Your task to perform on an android device: change text size in settings app Image 0: 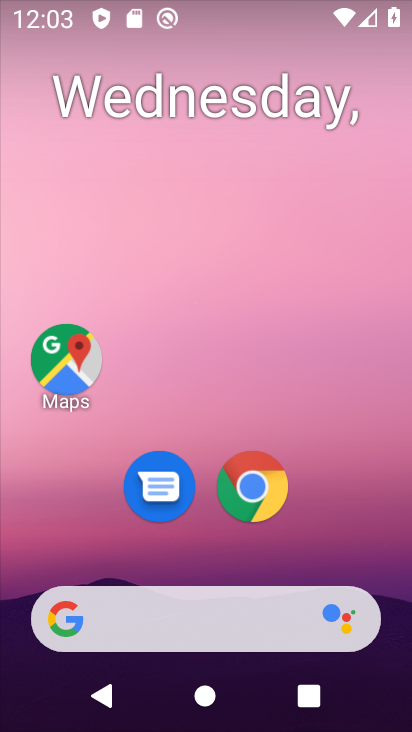
Step 0: drag from (329, 545) to (329, 166)
Your task to perform on an android device: change text size in settings app Image 1: 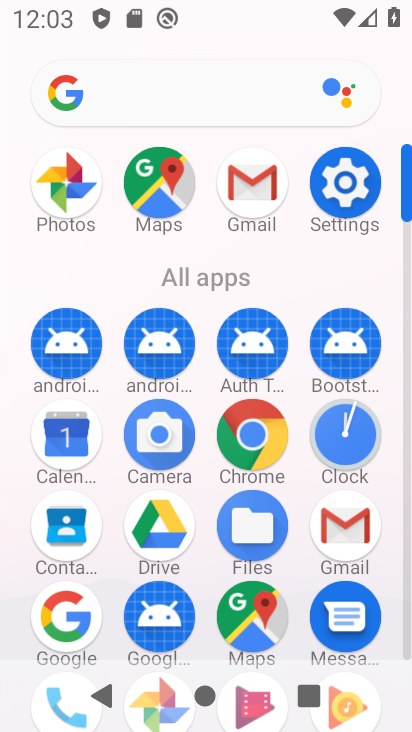
Step 1: click (344, 183)
Your task to perform on an android device: change text size in settings app Image 2: 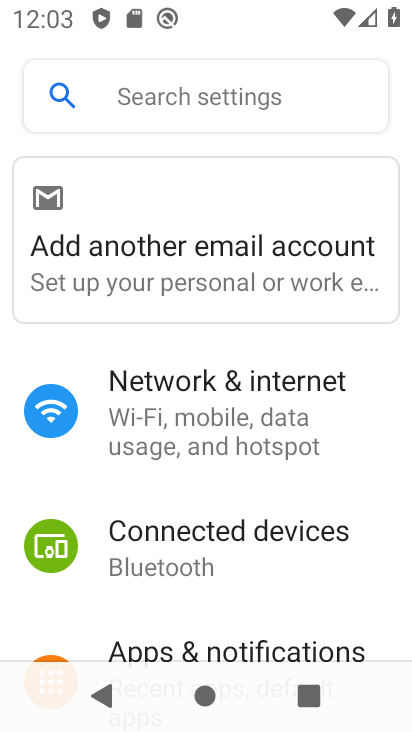
Step 2: drag from (316, 589) to (286, 181)
Your task to perform on an android device: change text size in settings app Image 3: 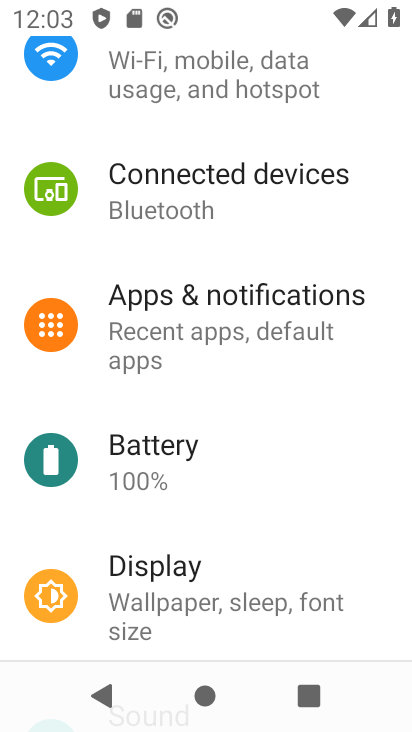
Step 3: drag from (310, 577) to (284, 234)
Your task to perform on an android device: change text size in settings app Image 4: 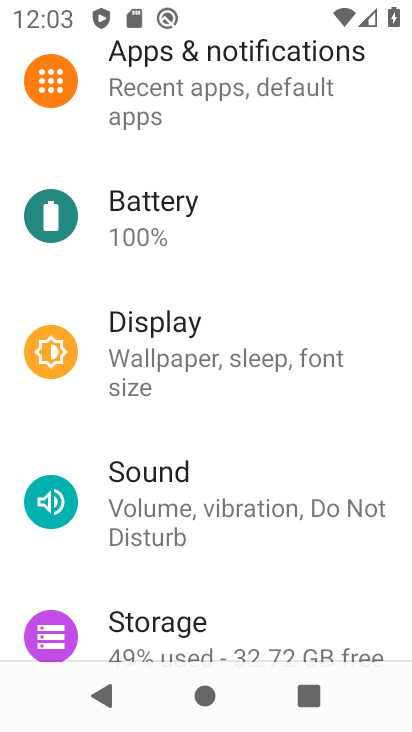
Step 4: click (260, 356)
Your task to perform on an android device: change text size in settings app Image 5: 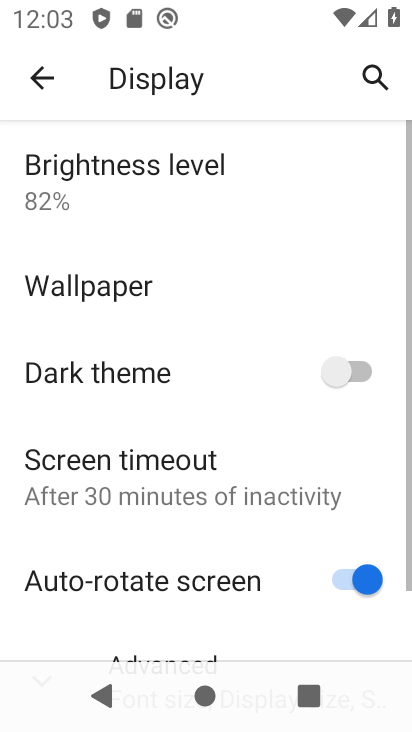
Step 5: drag from (312, 579) to (284, 268)
Your task to perform on an android device: change text size in settings app Image 6: 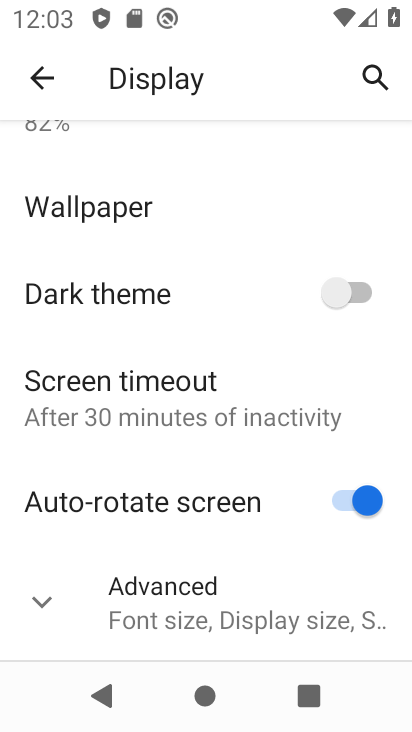
Step 6: click (249, 586)
Your task to perform on an android device: change text size in settings app Image 7: 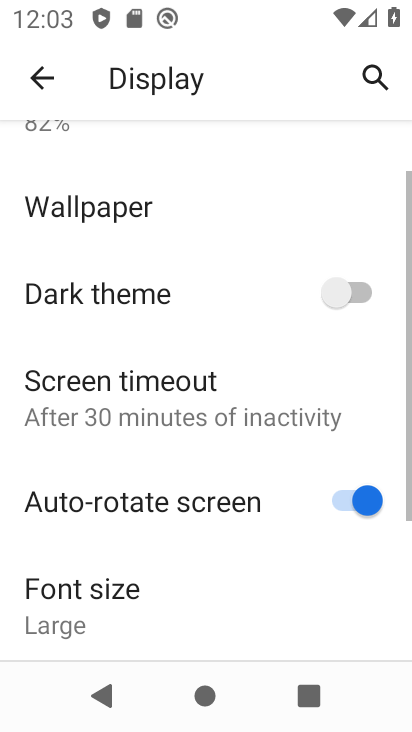
Step 7: drag from (247, 580) to (265, 230)
Your task to perform on an android device: change text size in settings app Image 8: 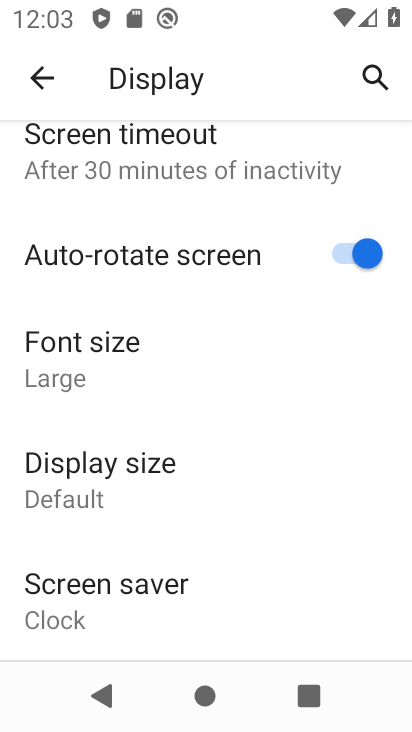
Step 8: click (205, 369)
Your task to perform on an android device: change text size in settings app Image 9: 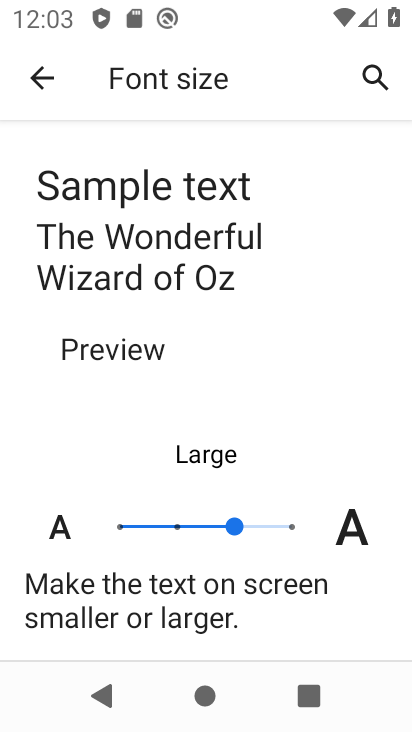
Step 9: click (186, 540)
Your task to perform on an android device: change text size in settings app Image 10: 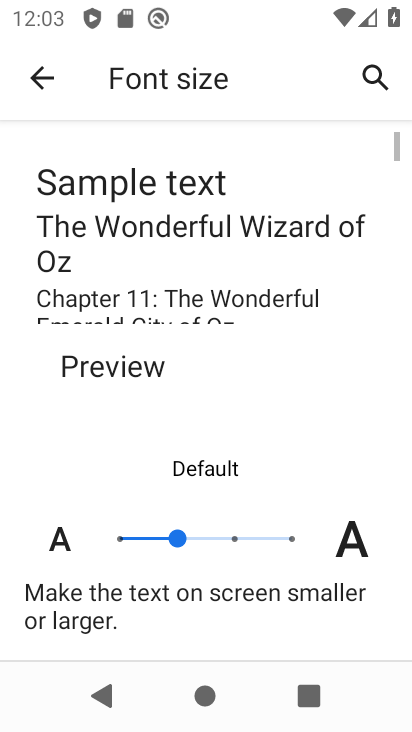
Step 10: task complete